Your task to perform on an android device: clear history in the chrome app Image 0: 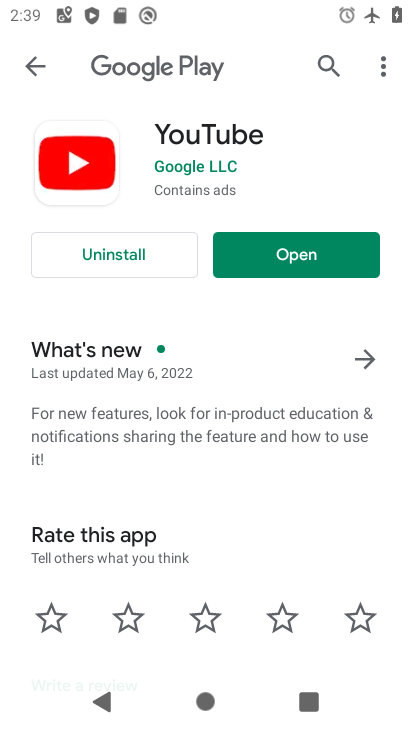
Step 0: press home button
Your task to perform on an android device: clear history in the chrome app Image 1: 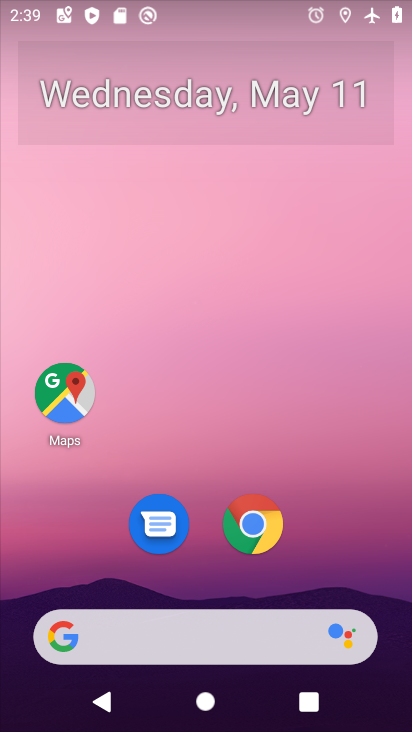
Step 1: click (250, 519)
Your task to perform on an android device: clear history in the chrome app Image 2: 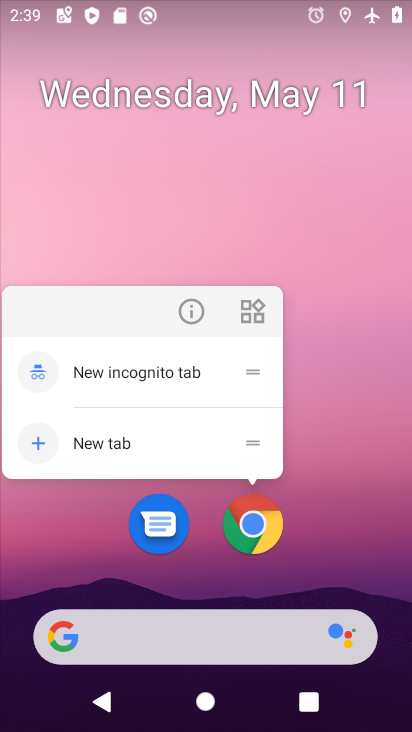
Step 2: click (293, 515)
Your task to perform on an android device: clear history in the chrome app Image 3: 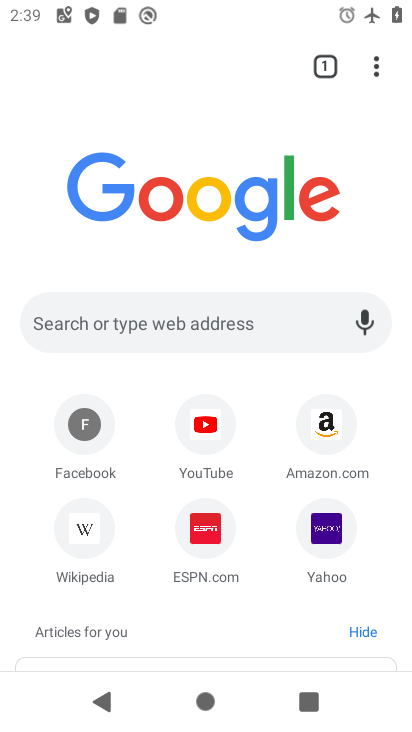
Step 3: click (372, 69)
Your task to perform on an android device: clear history in the chrome app Image 4: 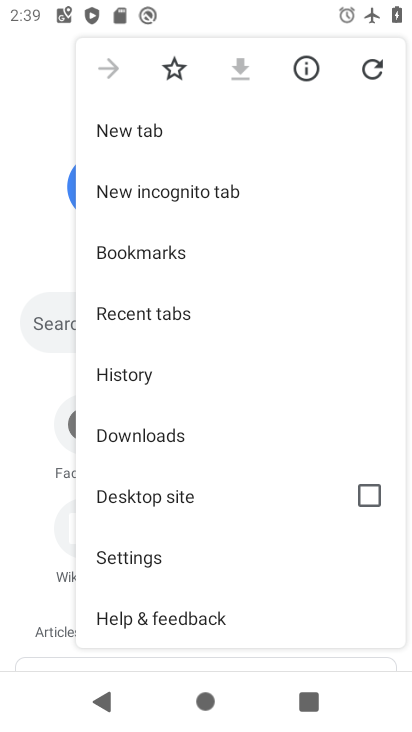
Step 4: click (154, 555)
Your task to perform on an android device: clear history in the chrome app Image 5: 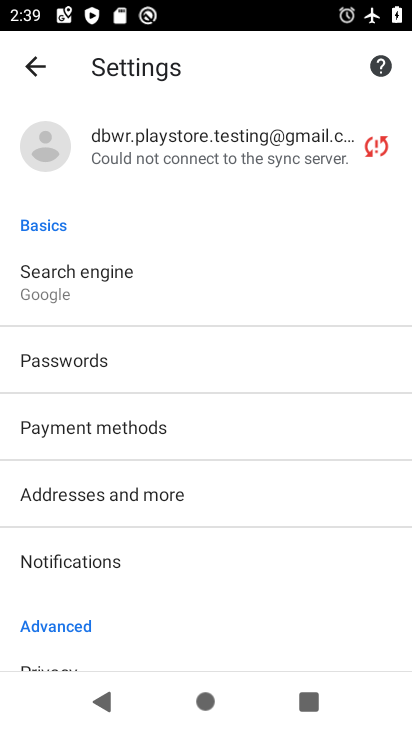
Step 5: drag from (153, 571) to (175, 361)
Your task to perform on an android device: clear history in the chrome app Image 6: 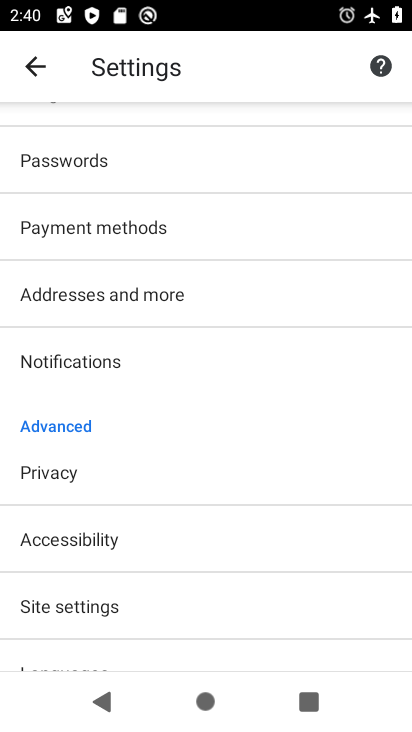
Step 6: click (165, 479)
Your task to perform on an android device: clear history in the chrome app Image 7: 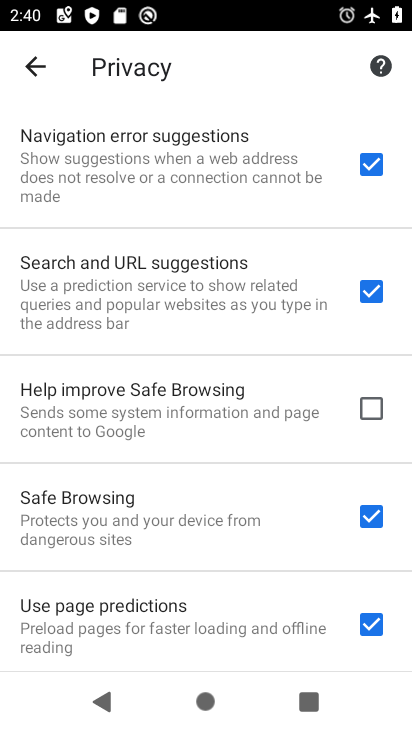
Step 7: drag from (237, 590) to (291, 186)
Your task to perform on an android device: clear history in the chrome app Image 8: 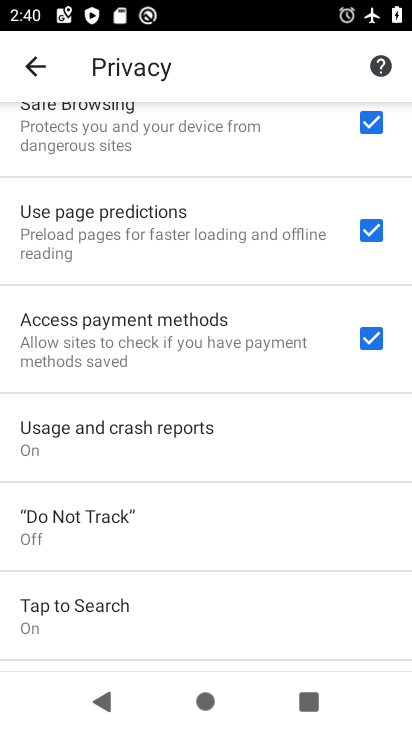
Step 8: drag from (199, 632) to (240, 340)
Your task to perform on an android device: clear history in the chrome app Image 9: 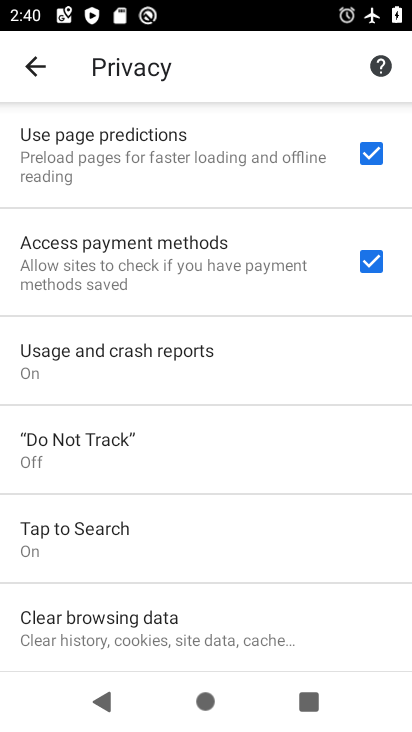
Step 9: click (187, 618)
Your task to perform on an android device: clear history in the chrome app Image 10: 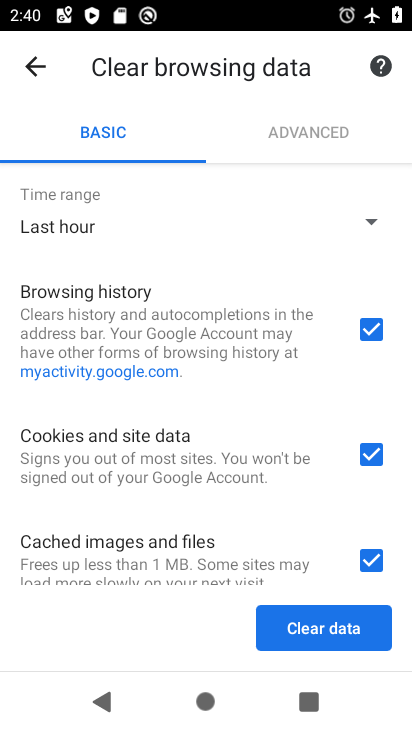
Step 10: click (370, 453)
Your task to perform on an android device: clear history in the chrome app Image 11: 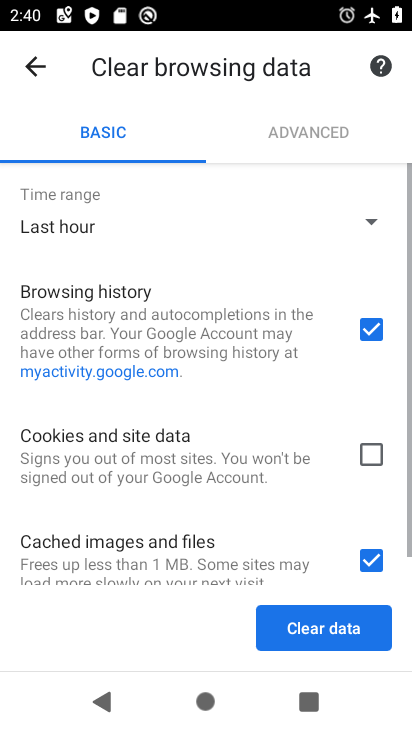
Step 11: click (371, 560)
Your task to perform on an android device: clear history in the chrome app Image 12: 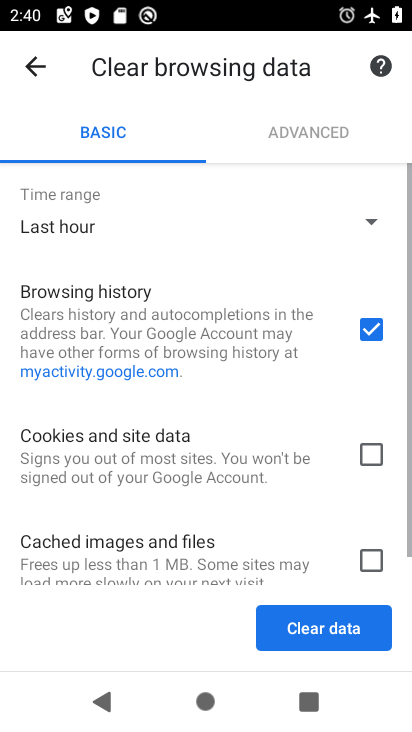
Step 12: click (346, 647)
Your task to perform on an android device: clear history in the chrome app Image 13: 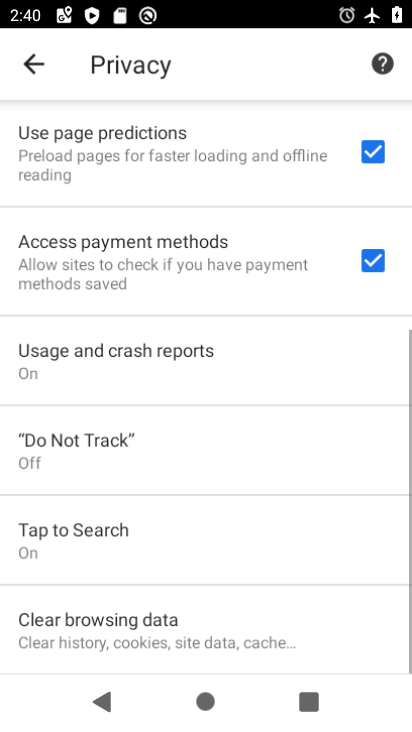
Step 13: click (354, 627)
Your task to perform on an android device: clear history in the chrome app Image 14: 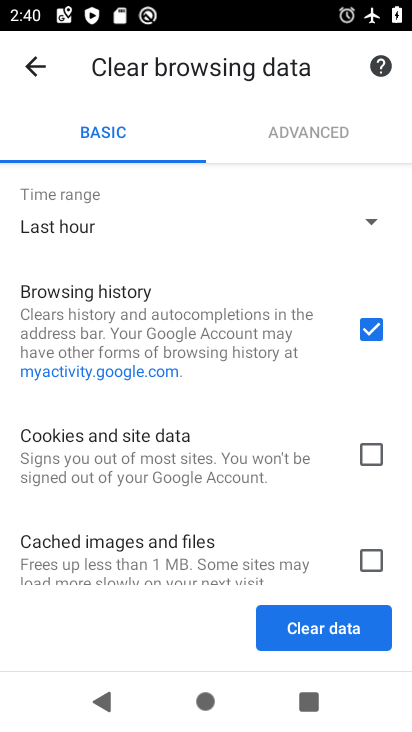
Step 14: click (348, 619)
Your task to perform on an android device: clear history in the chrome app Image 15: 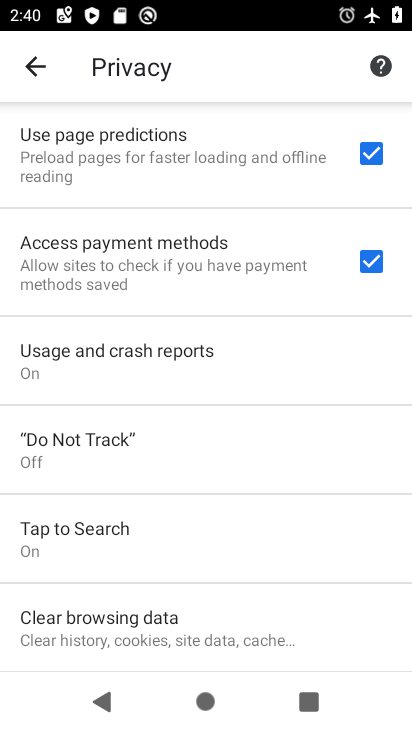
Step 15: task complete